Your task to perform on an android device: Open internet settings Image 0: 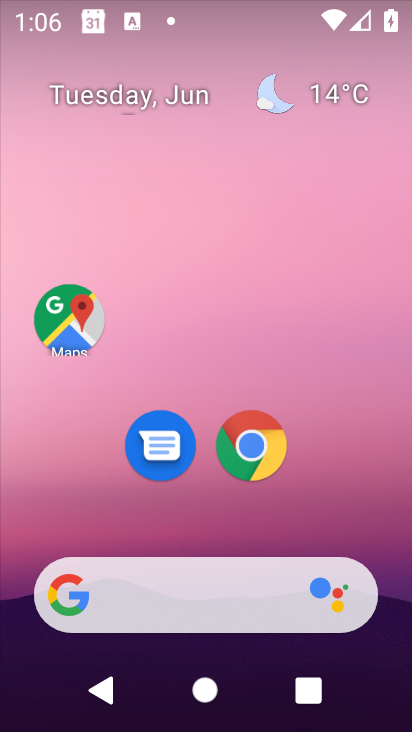
Step 0: drag from (253, 17) to (301, 613)
Your task to perform on an android device: Open internet settings Image 1: 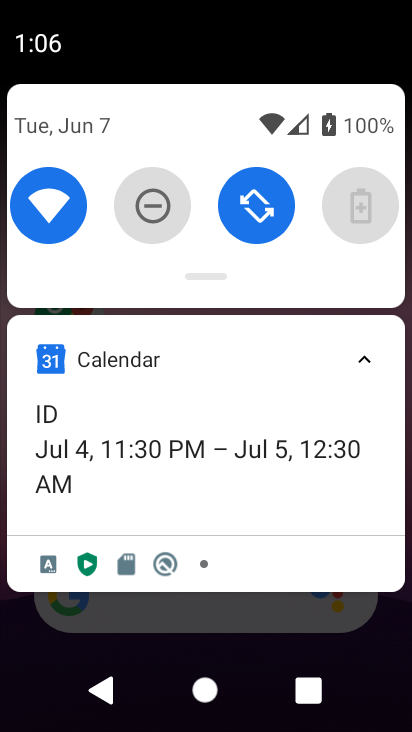
Step 1: drag from (306, 193) to (346, 546)
Your task to perform on an android device: Open internet settings Image 2: 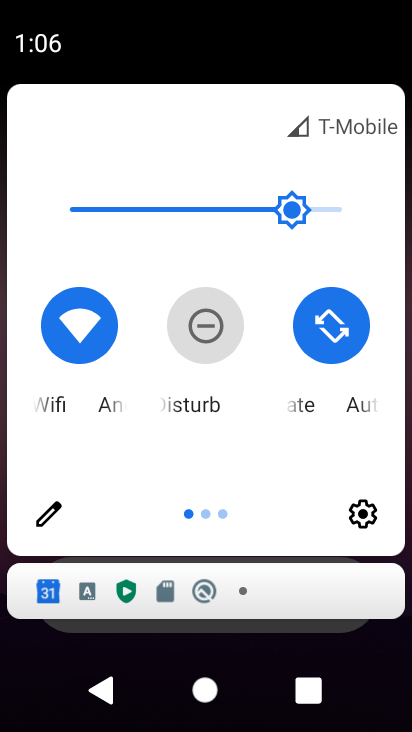
Step 2: drag from (353, 435) to (53, 404)
Your task to perform on an android device: Open internet settings Image 3: 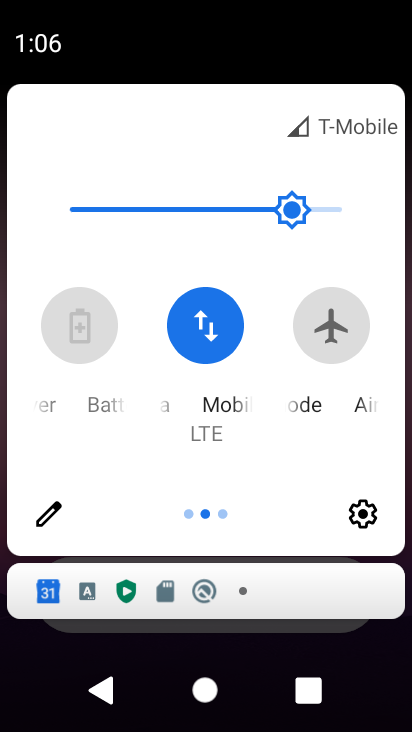
Step 3: click (198, 348)
Your task to perform on an android device: Open internet settings Image 4: 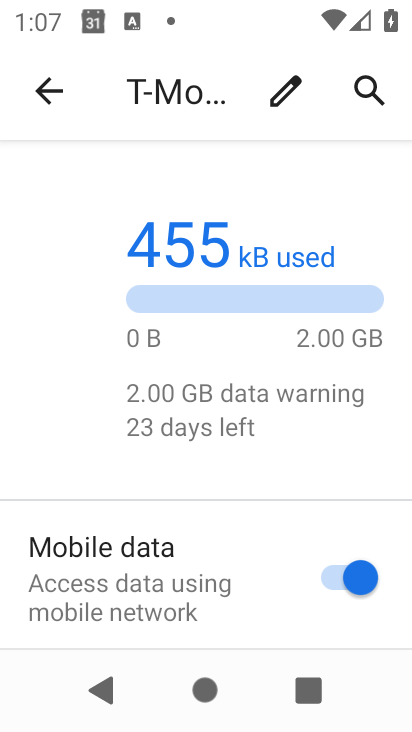
Step 4: task complete